Your task to perform on an android device: turn on sleep mode Image 0: 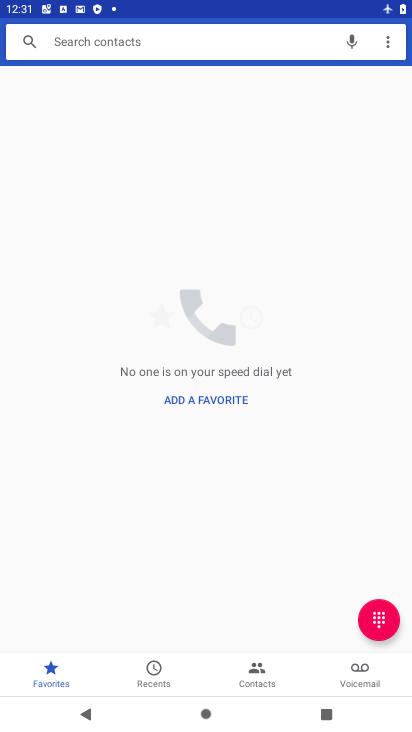
Step 0: press home button
Your task to perform on an android device: turn on sleep mode Image 1: 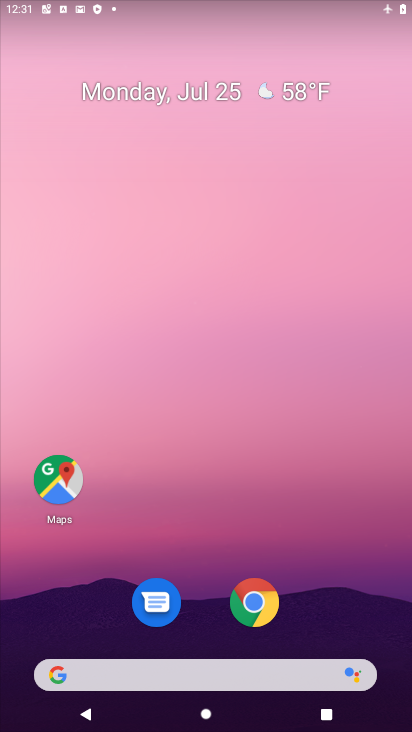
Step 1: drag from (208, 600) to (198, 83)
Your task to perform on an android device: turn on sleep mode Image 2: 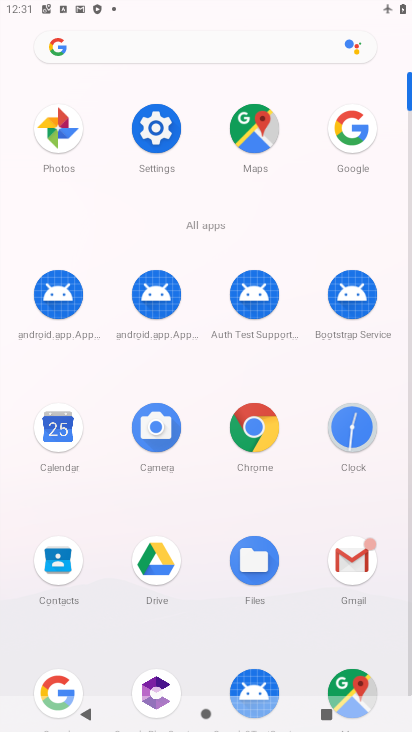
Step 2: click (142, 145)
Your task to perform on an android device: turn on sleep mode Image 3: 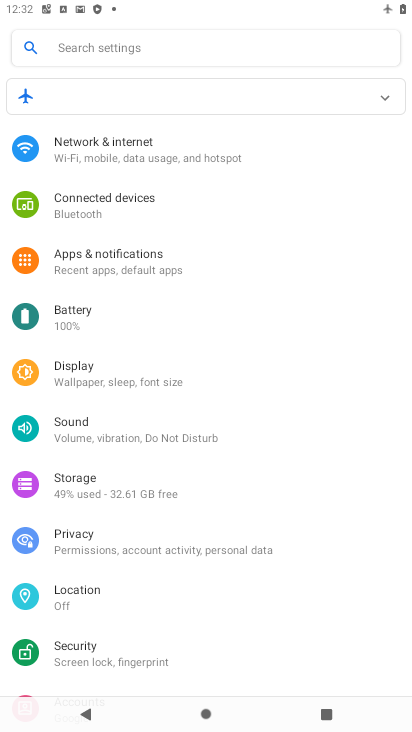
Step 3: click (140, 368)
Your task to perform on an android device: turn on sleep mode Image 4: 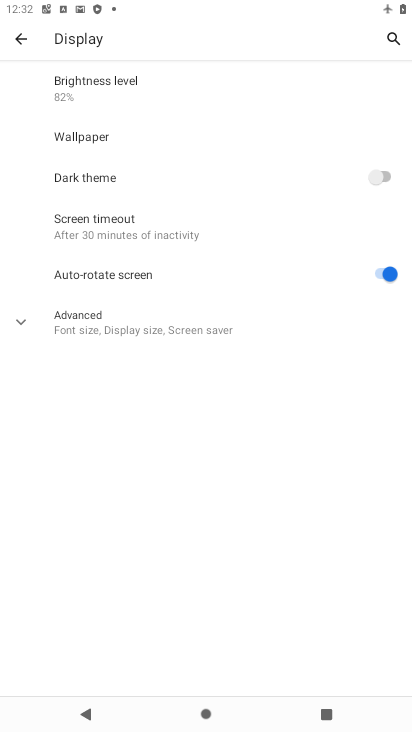
Step 4: click (151, 229)
Your task to perform on an android device: turn on sleep mode Image 5: 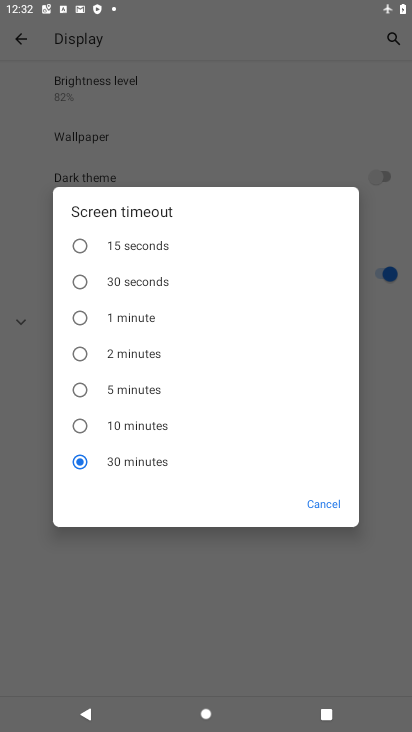
Step 5: click (166, 343)
Your task to perform on an android device: turn on sleep mode Image 6: 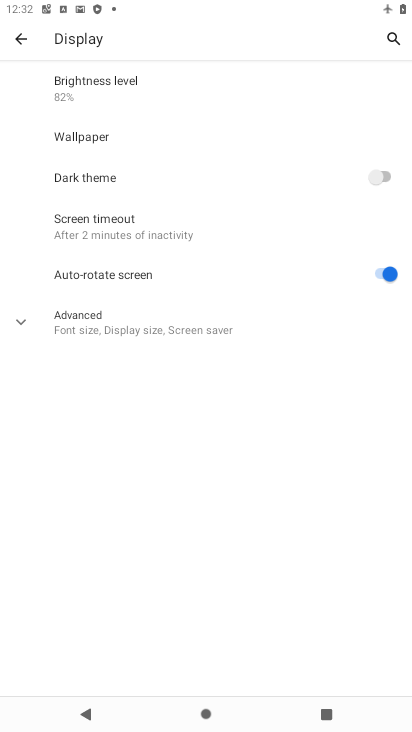
Step 6: task complete